Your task to perform on an android device: turn off notifications in google photos Image 0: 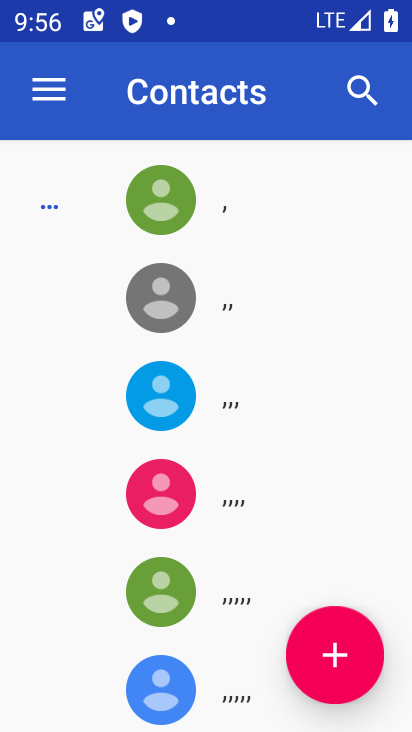
Step 0: press home button
Your task to perform on an android device: turn off notifications in google photos Image 1: 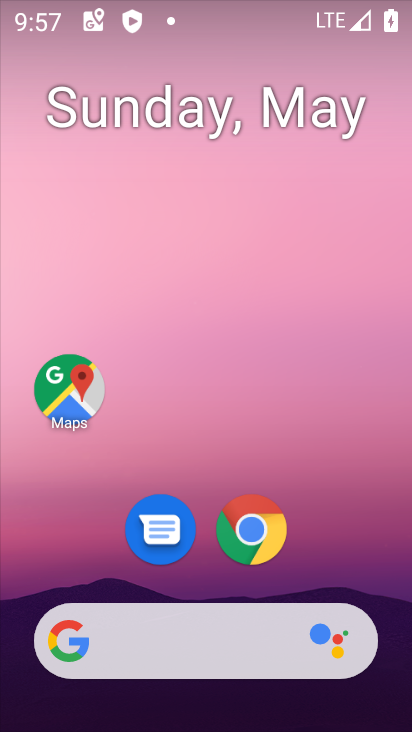
Step 1: drag from (356, 559) to (286, 53)
Your task to perform on an android device: turn off notifications in google photos Image 2: 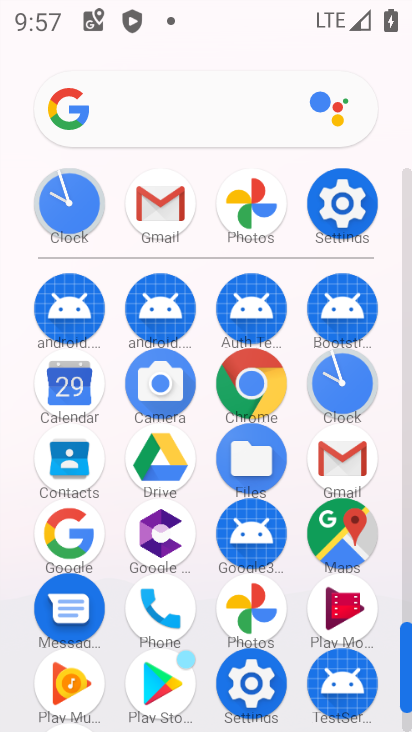
Step 2: click (241, 217)
Your task to perform on an android device: turn off notifications in google photos Image 3: 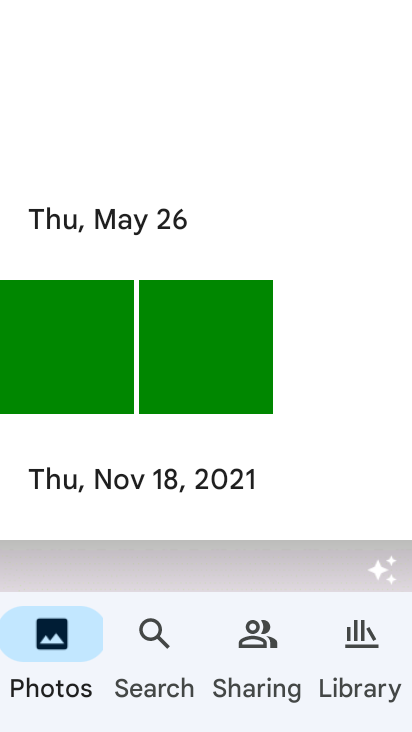
Step 3: task complete